Your task to perform on an android device: toggle pop-ups in chrome Image 0: 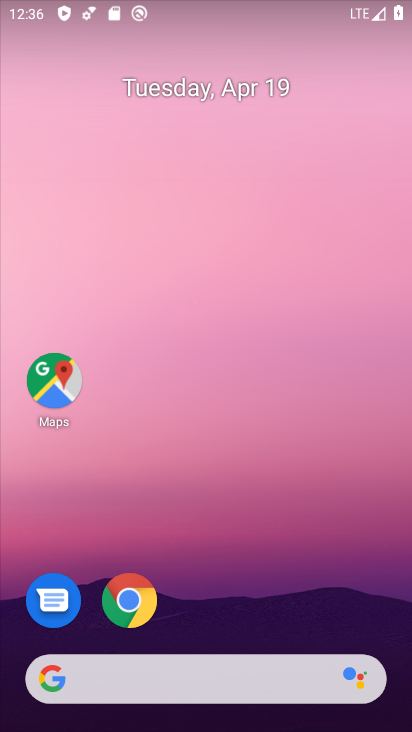
Step 0: click (137, 601)
Your task to perform on an android device: toggle pop-ups in chrome Image 1: 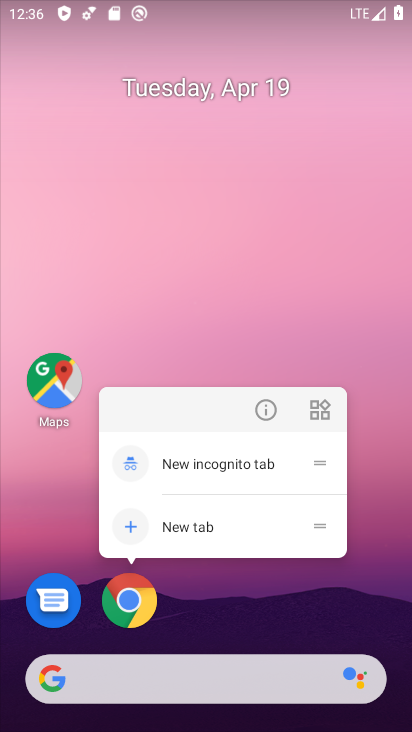
Step 1: drag from (339, 593) to (328, 93)
Your task to perform on an android device: toggle pop-ups in chrome Image 2: 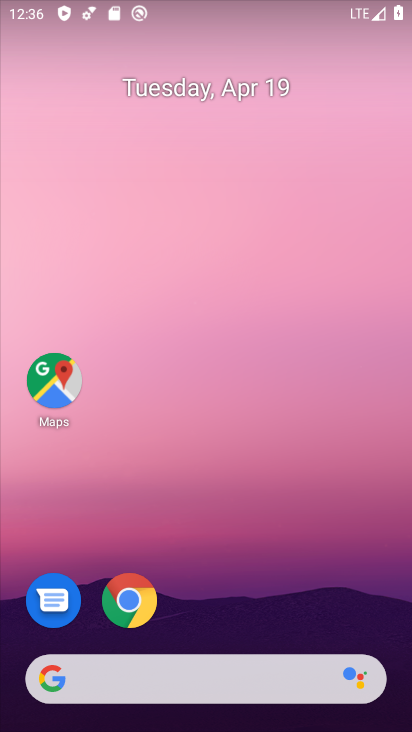
Step 2: drag from (216, 519) to (199, 128)
Your task to perform on an android device: toggle pop-ups in chrome Image 3: 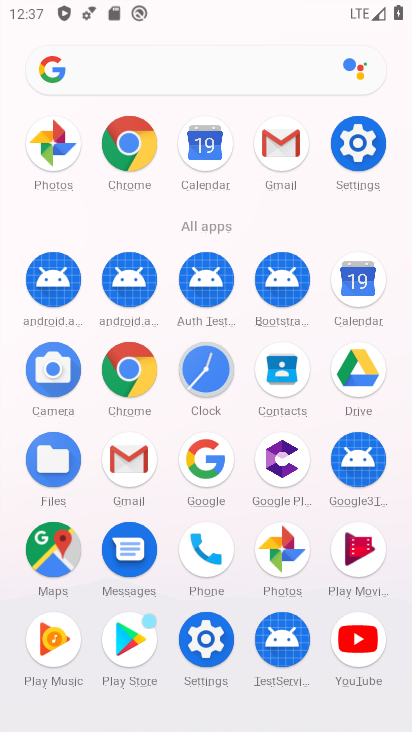
Step 3: click (133, 160)
Your task to perform on an android device: toggle pop-ups in chrome Image 4: 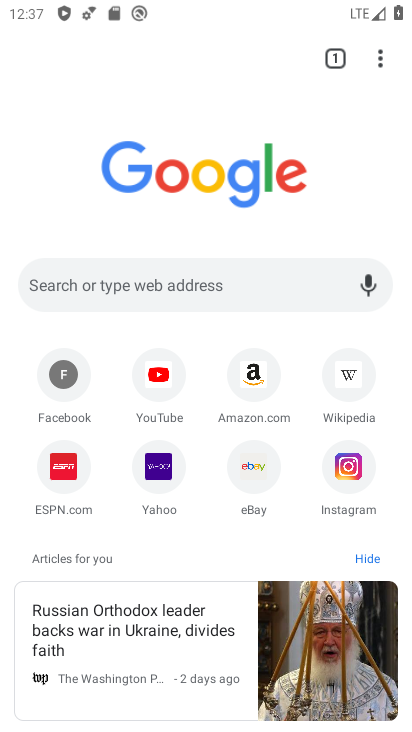
Step 4: drag from (380, 49) to (162, 494)
Your task to perform on an android device: toggle pop-ups in chrome Image 5: 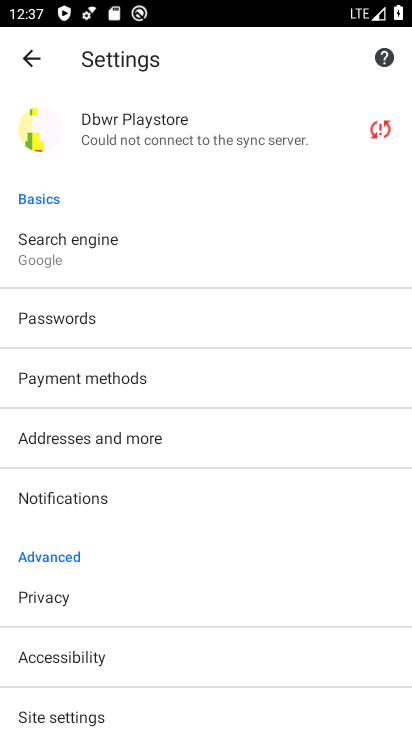
Step 5: drag from (231, 582) to (252, 159)
Your task to perform on an android device: toggle pop-ups in chrome Image 6: 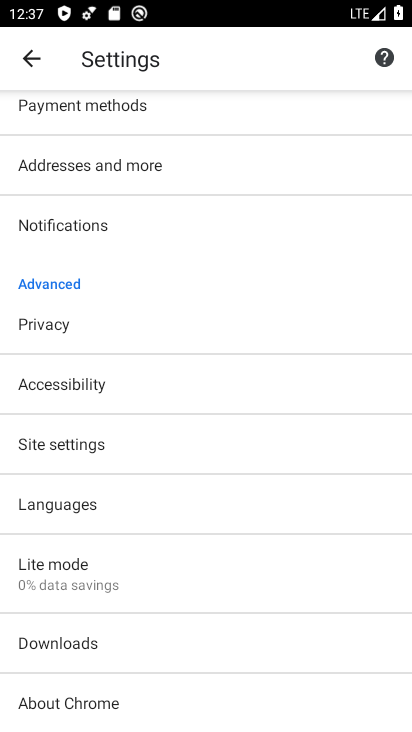
Step 6: click (134, 443)
Your task to perform on an android device: toggle pop-ups in chrome Image 7: 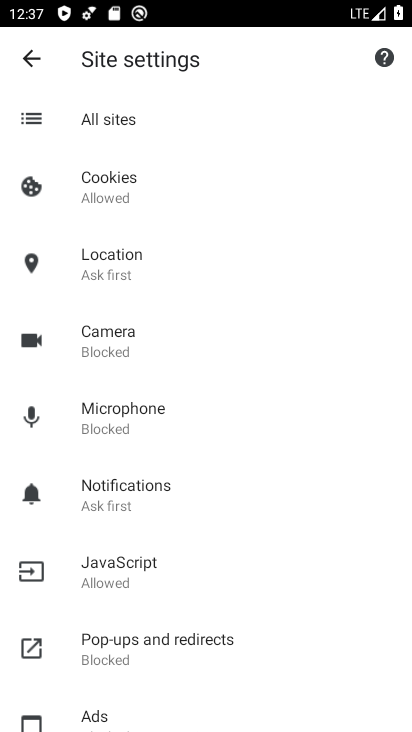
Step 7: drag from (296, 658) to (273, 251)
Your task to perform on an android device: toggle pop-ups in chrome Image 8: 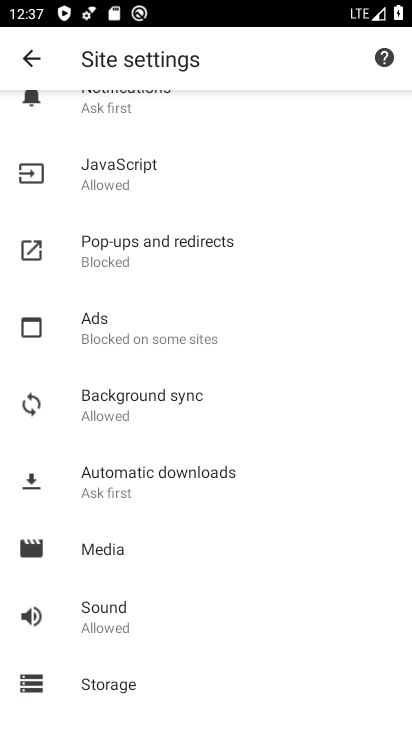
Step 8: click (137, 249)
Your task to perform on an android device: toggle pop-ups in chrome Image 9: 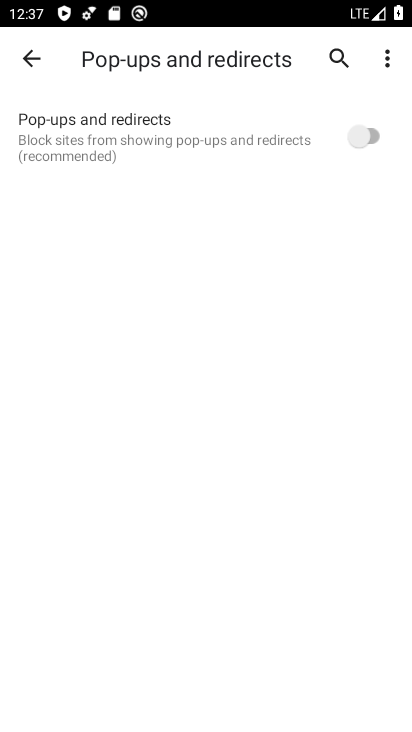
Step 9: click (344, 169)
Your task to perform on an android device: toggle pop-ups in chrome Image 10: 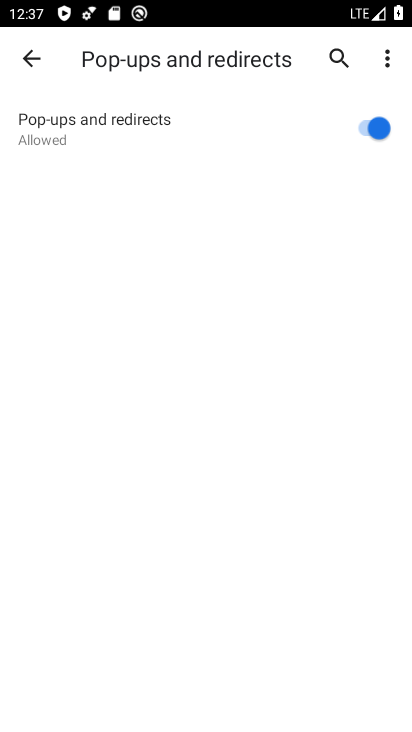
Step 10: task complete